Your task to perform on an android device: turn on priority inbox in the gmail app Image 0: 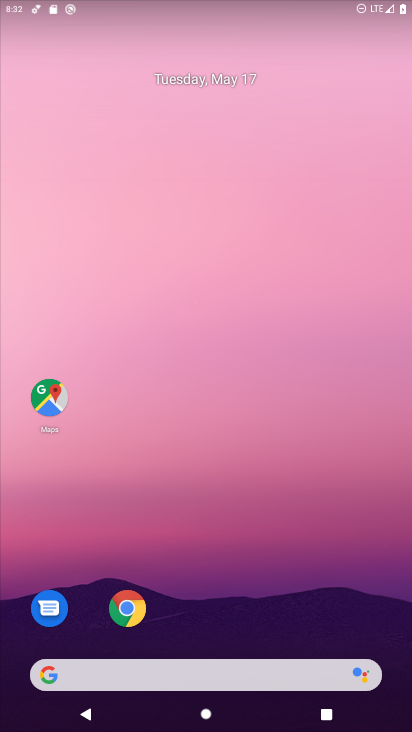
Step 0: drag from (209, 571) to (220, 83)
Your task to perform on an android device: turn on priority inbox in the gmail app Image 1: 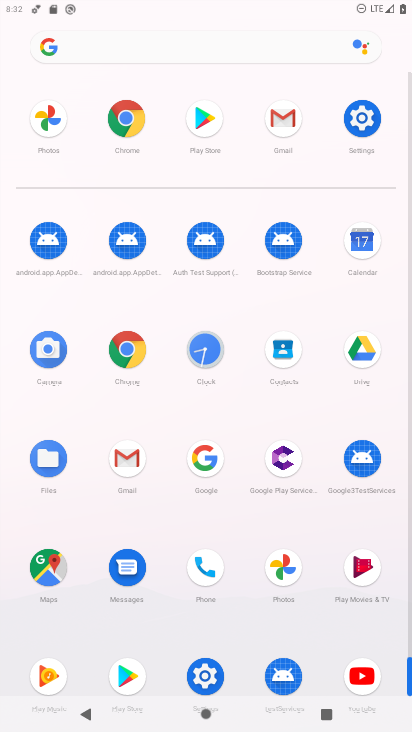
Step 1: click (131, 455)
Your task to perform on an android device: turn on priority inbox in the gmail app Image 2: 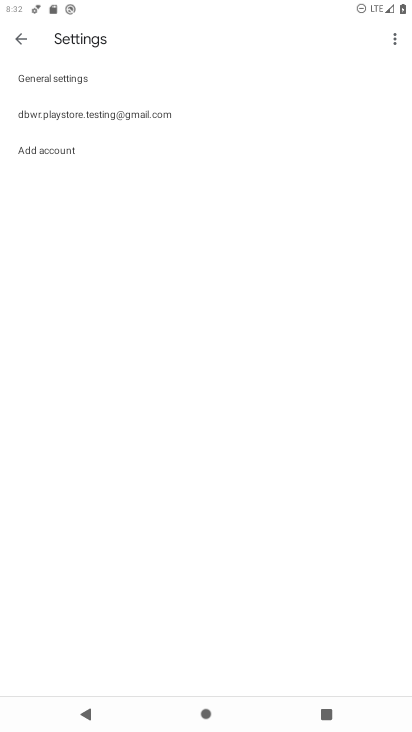
Step 2: click (93, 113)
Your task to perform on an android device: turn on priority inbox in the gmail app Image 3: 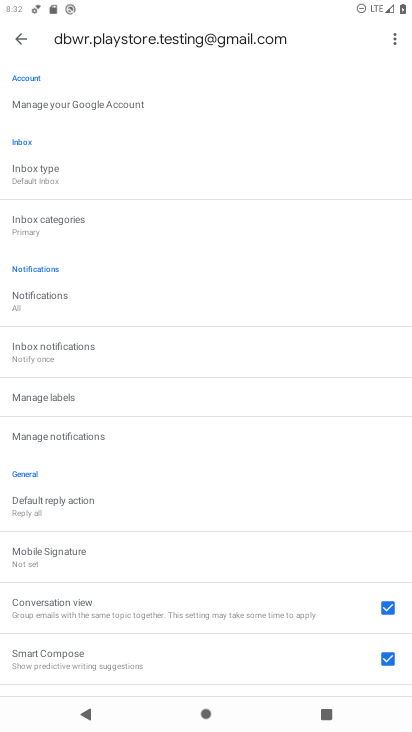
Step 3: click (74, 175)
Your task to perform on an android device: turn on priority inbox in the gmail app Image 4: 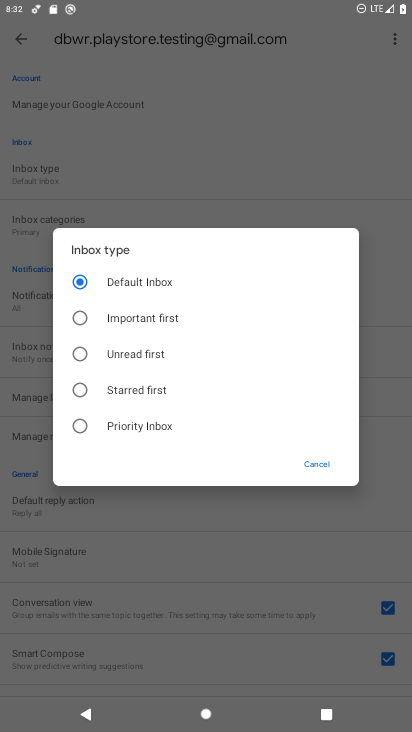
Step 4: click (122, 418)
Your task to perform on an android device: turn on priority inbox in the gmail app Image 5: 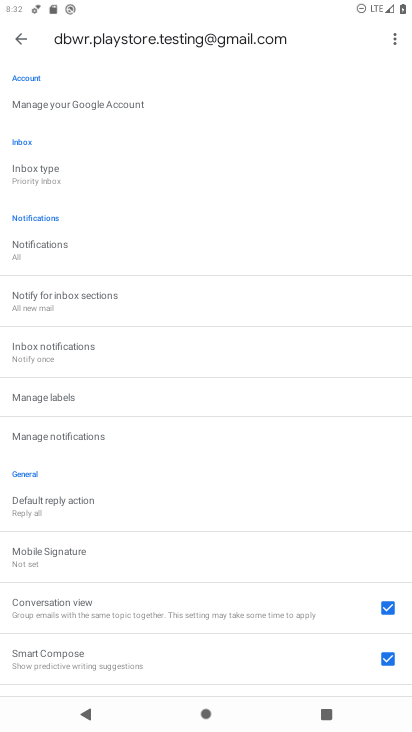
Step 5: task complete